Your task to perform on an android device: Go to wifi settings Image 0: 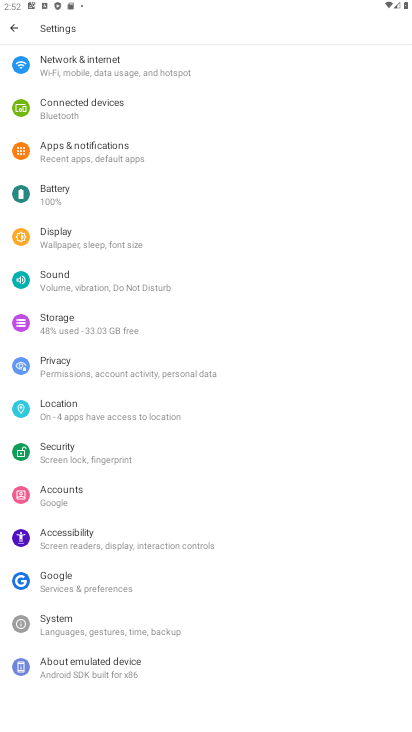
Step 0: click (68, 54)
Your task to perform on an android device: Go to wifi settings Image 1: 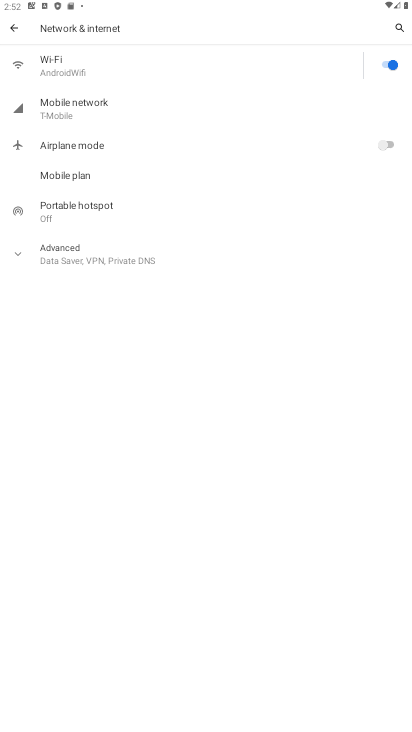
Step 1: click (62, 67)
Your task to perform on an android device: Go to wifi settings Image 2: 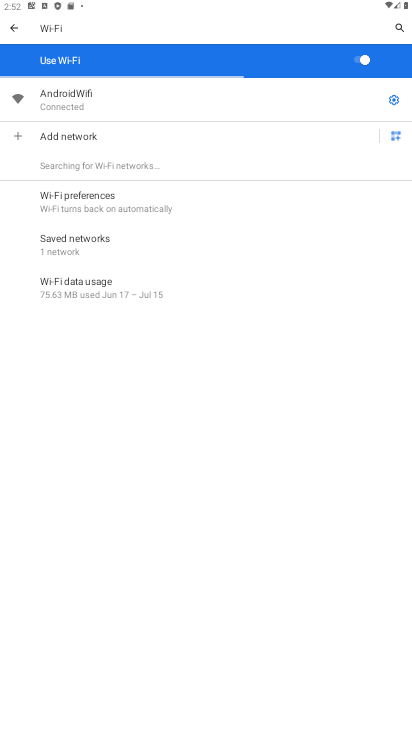
Step 2: task complete